Your task to perform on an android device: Open Youtube and go to the subscriptions tab Image 0: 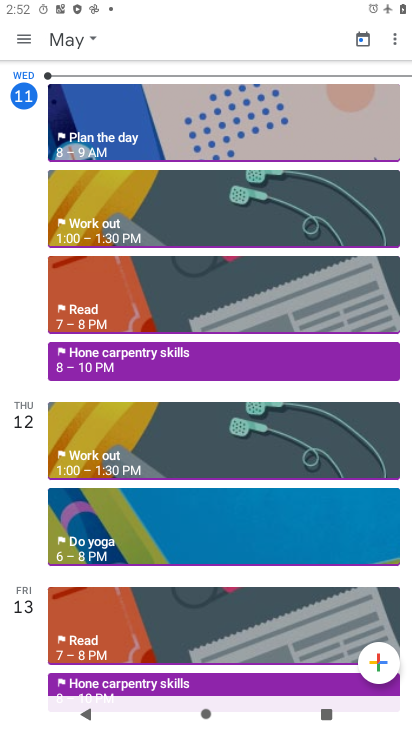
Step 0: press home button
Your task to perform on an android device: Open Youtube and go to the subscriptions tab Image 1: 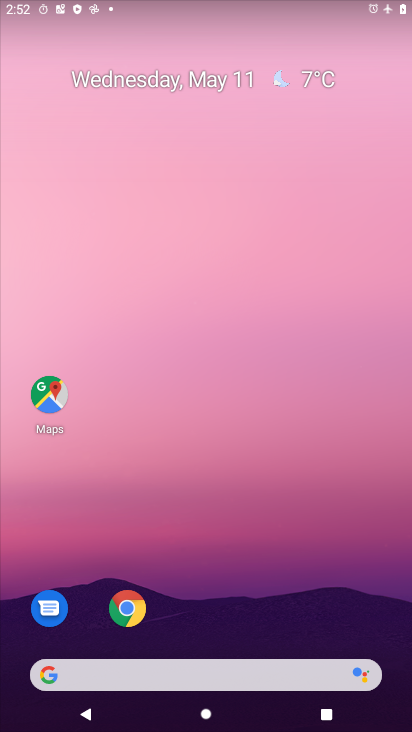
Step 1: drag from (240, 585) to (248, 27)
Your task to perform on an android device: Open Youtube and go to the subscriptions tab Image 2: 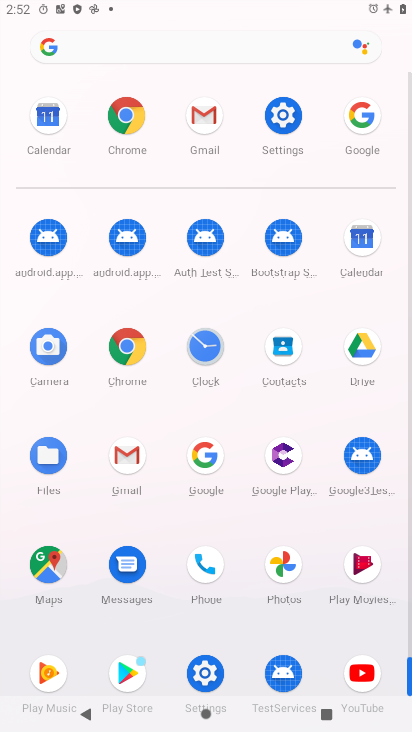
Step 2: click (360, 670)
Your task to perform on an android device: Open Youtube and go to the subscriptions tab Image 3: 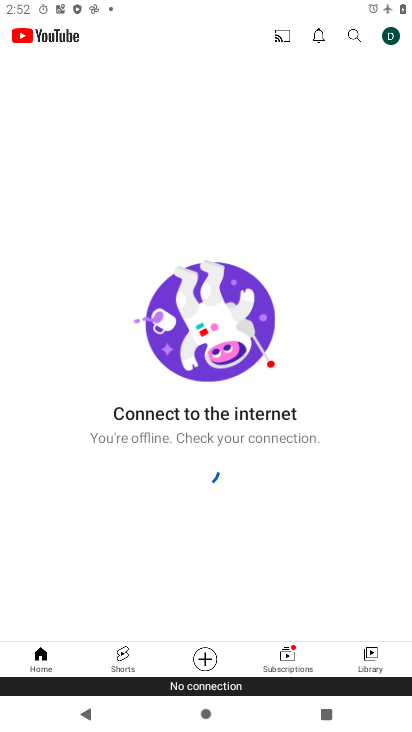
Step 3: click (293, 658)
Your task to perform on an android device: Open Youtube and go to the subscriptions tab Image 4: 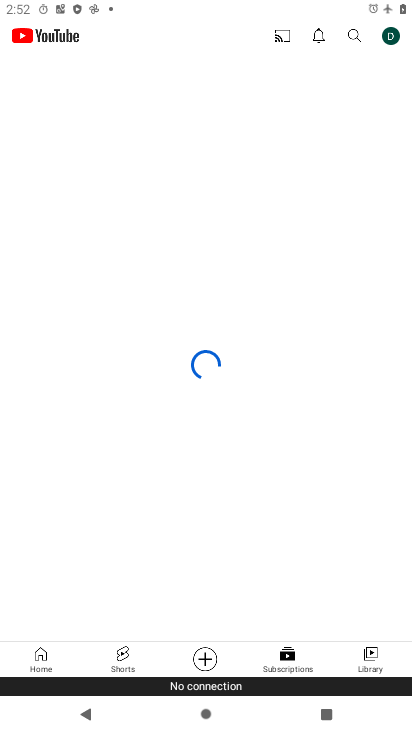
Step 4: task complete